Your task to perform on an android device: open sync settings in chrome Image 0: 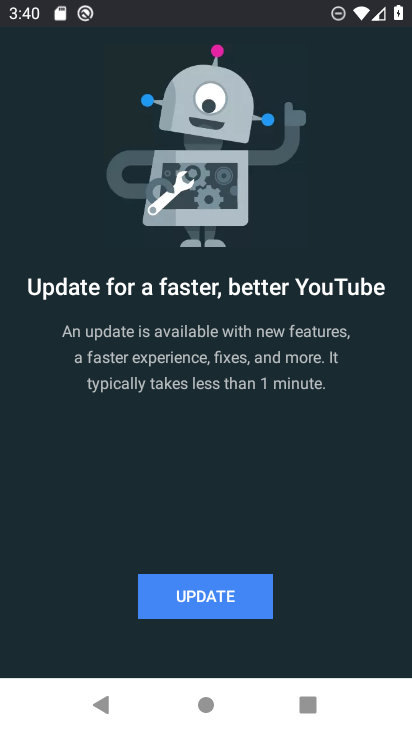
Step 0: press home button
Your task to perform on an android device: open sync settings in chrome Image 1: 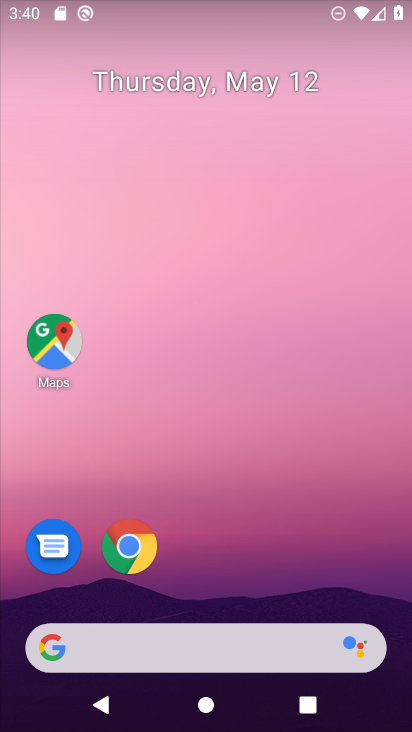
Step 1: drag from (269, 474) to (281, 296)
Your task to perform on an android device: open sync settings in chrome Image 2: 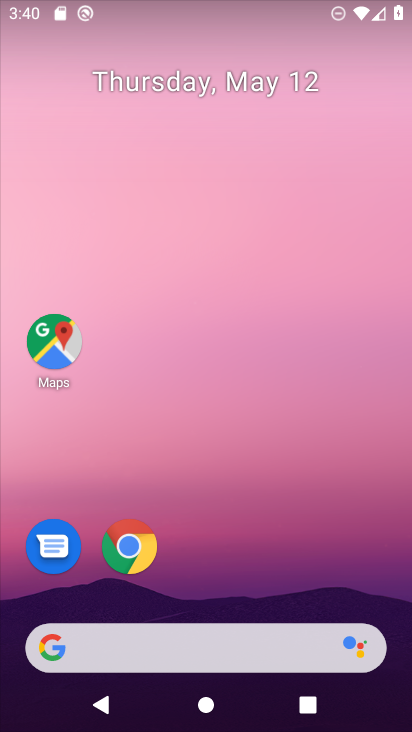
Step 2: drag from (193, 622) to (256, 229)
Your task to perform on an android device: open sync settings in chrome Image 3: 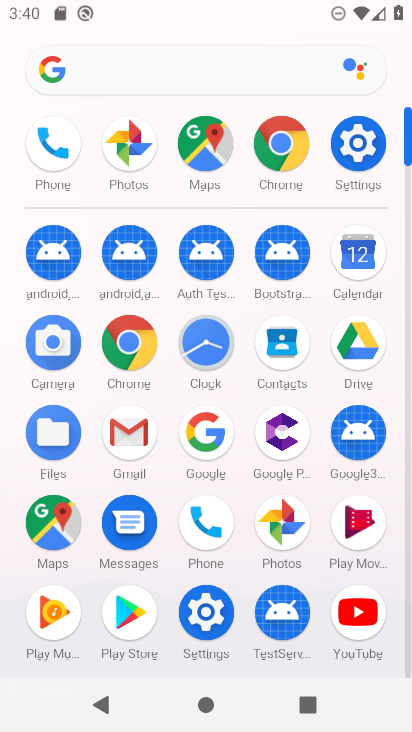
Step 3: click (281, 126)
Your task to perform on an android device: open sync settings in chrome Image 4: 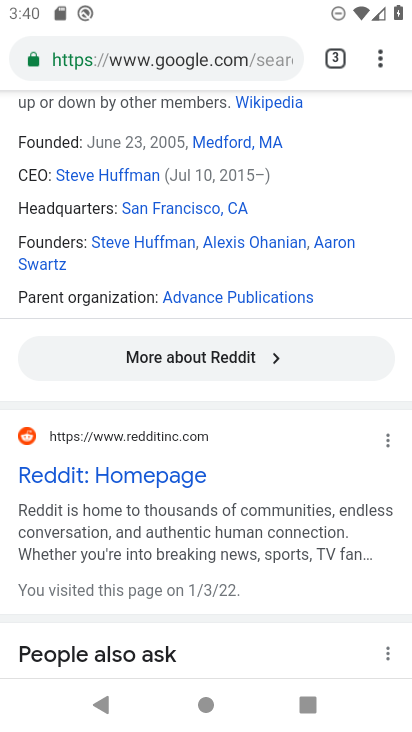
Step 4: click (370, 51)
Your task to perform on an android device: open sync settings in chrome Image 5: 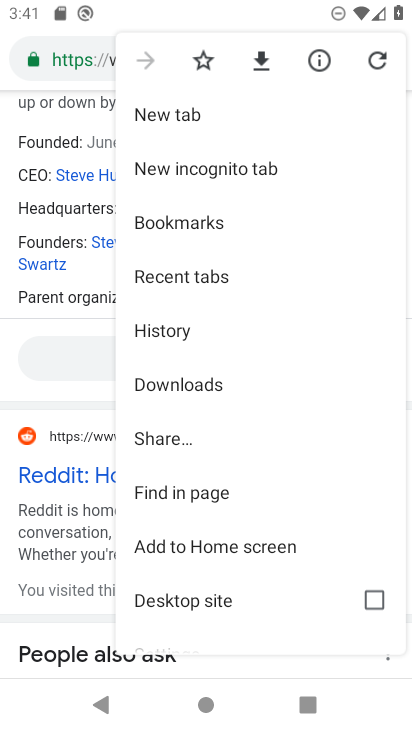
Step 5: drag from (208, 620) to (285, 230)
Your task to perform on an android device: open sync settings in chrome Image 6: 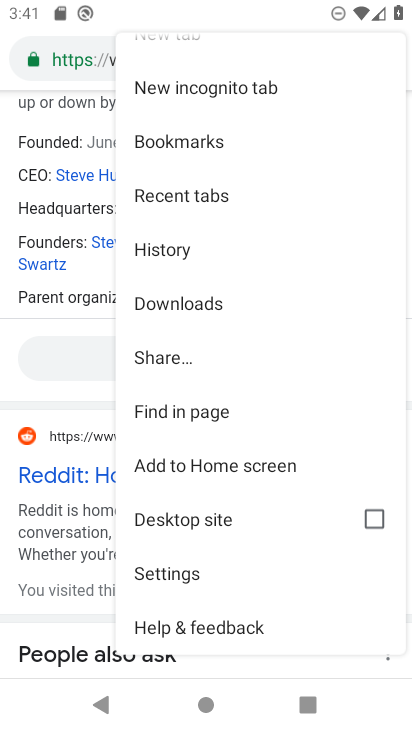
Step 6: click (184, 577)
Your task to perform on an android device: open sync settings in chrome Image 7: 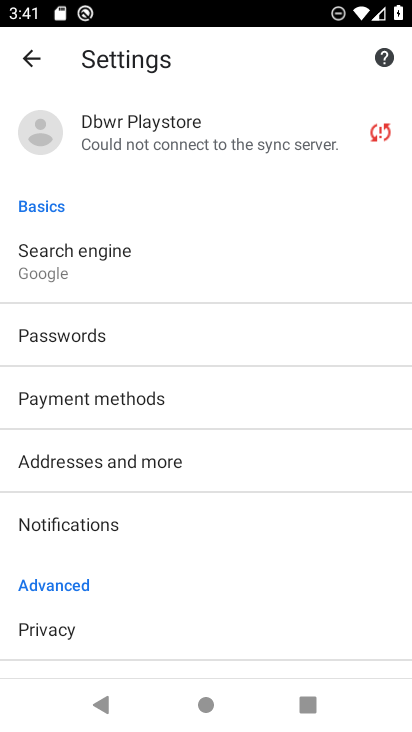
Step 7: click (121, 128)
Your task to perform on an android device: open sync settings in chrome Image 8: 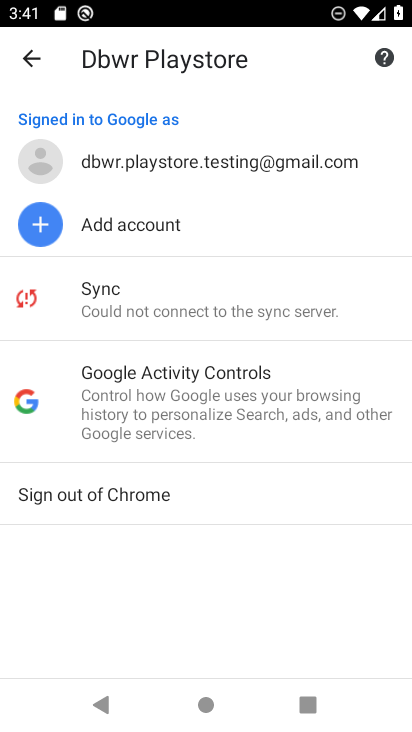
Step 8: click (142, 313)
Your task to perform on an android device: open sync settings in chrome Image 9: 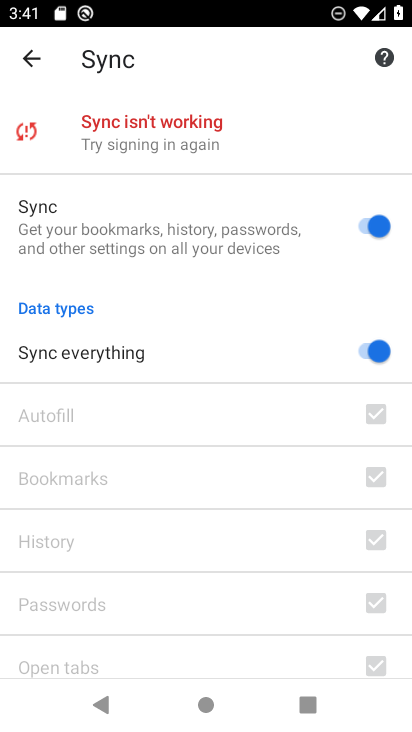
Step 9: task complete